Your task to perform on an android device: Open Chrome and go to settings Image 0: 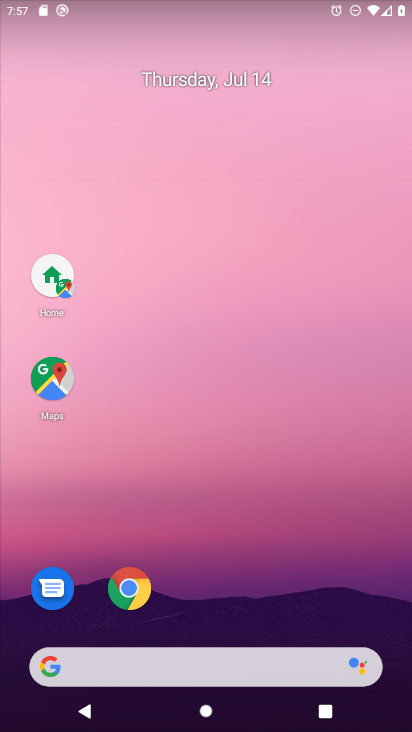
Step 0: click (130, 586)
Your task to perform on an android device: Open Chrome and go to settings Image 1: 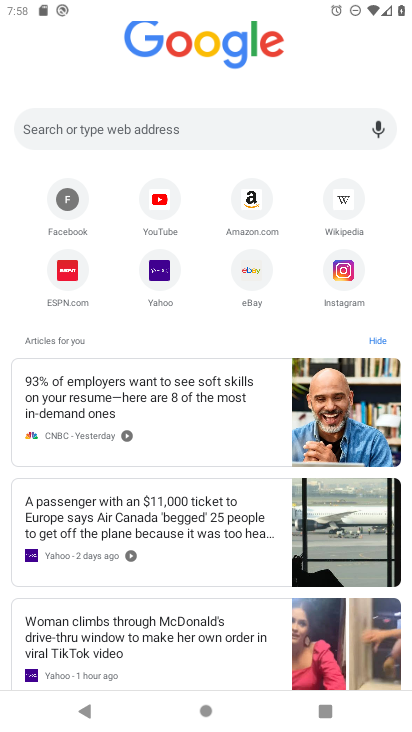
Step 1: click (59, 117)
Your task to perform on an android device: Open Chrome and go to settings Image 2: 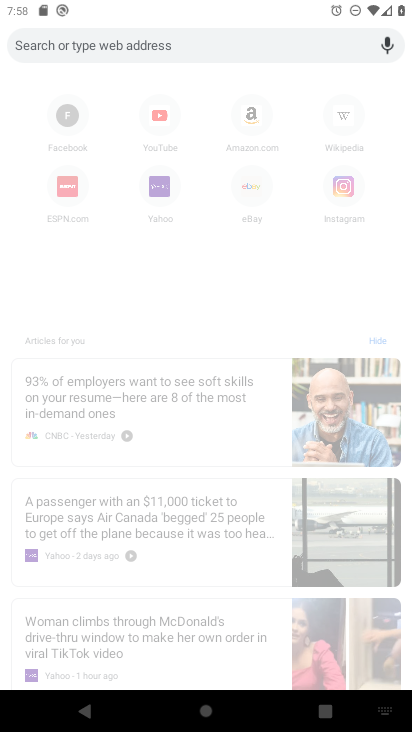
Step 2: click (232, 281)
Your task to perform on an android device: Open Chrome and go to settings Image 3: 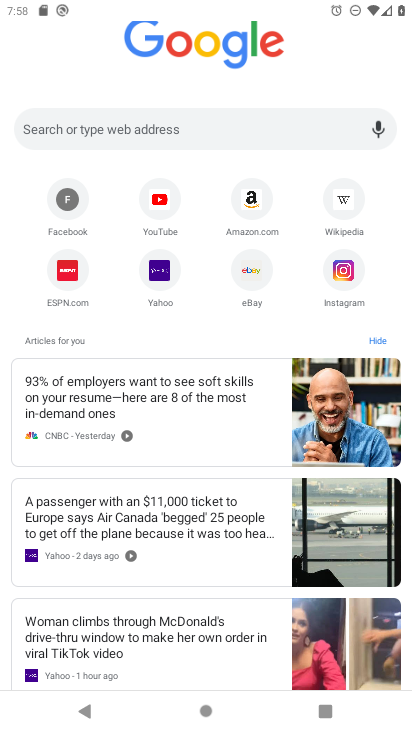
Step 3: task complete